Your task to perform on an android device: Open Google Maps and go to "Timeline" Image 0: 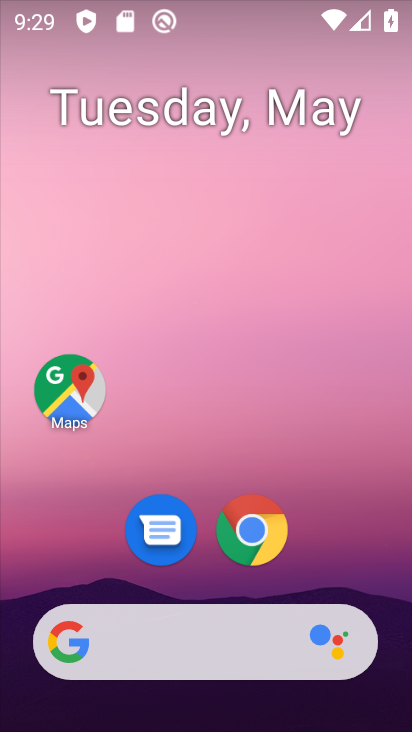
Step 0: drag from (194, 563) to (273, 69)
Your task to perform on an android device: Open Google Maps and go to "Timeline" Image 1: 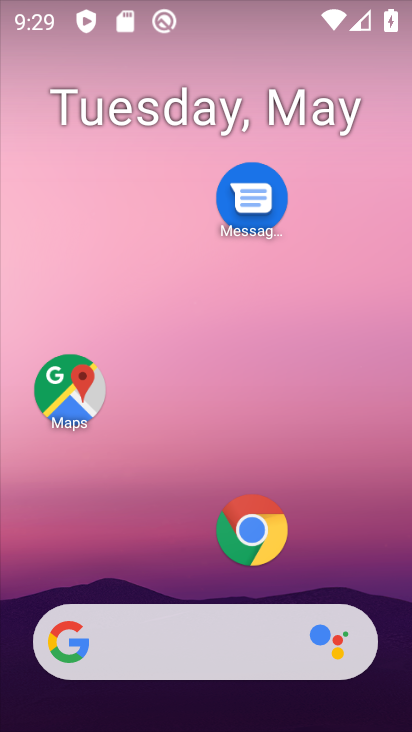
Step 1: drag from (311, 546) to (325, 245)
Your task to perform on an android device: Open Google Maps and go to "Timeline" Image 2: 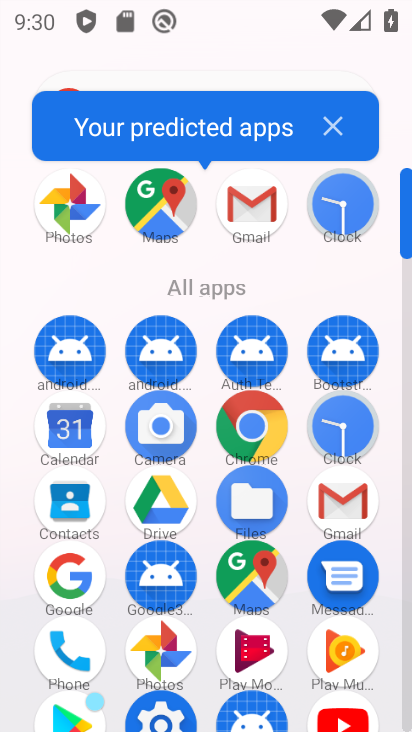
Step 2: click (244, 563)
Your task to perform on an android device: Open Google Maps and go to "Timeline" Image 3: 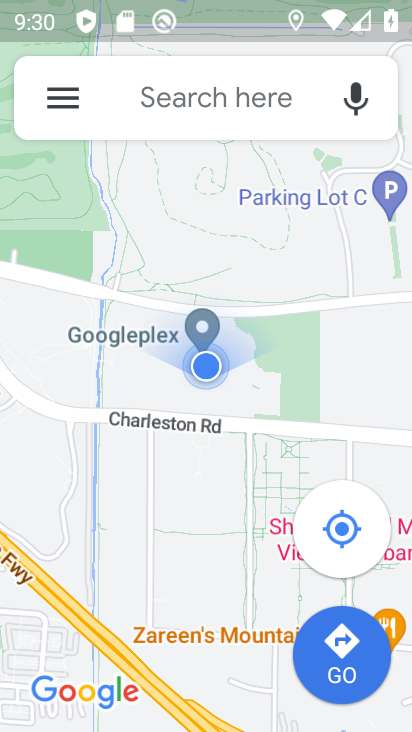
Step 3: click (57, 102)
Your task to perform on an android device: Open Google Maps and go to "Timeline" Image 4: 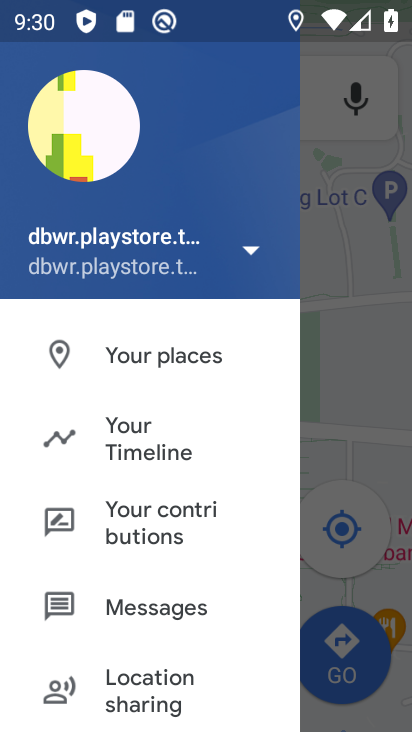
Step 4: click (152, 446)
Your task to perform on an android device: Open Google Maps and go to "Timeline" Image 5: 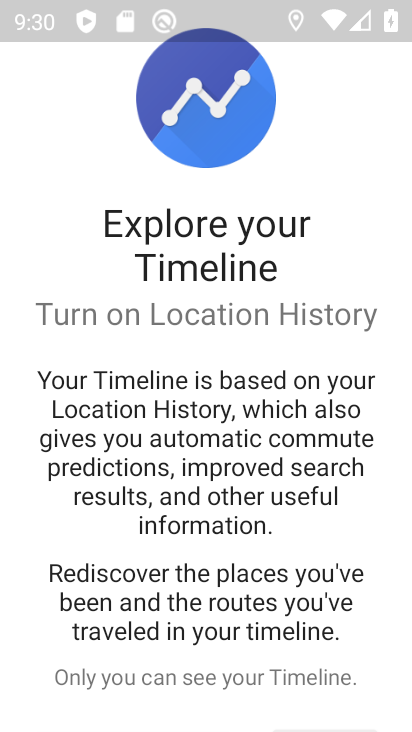
Step 5: drag from (163, 461) to (190, 321)
Your task to perform on an android device: Open Google Maps and go to "Timeline" Image 6: 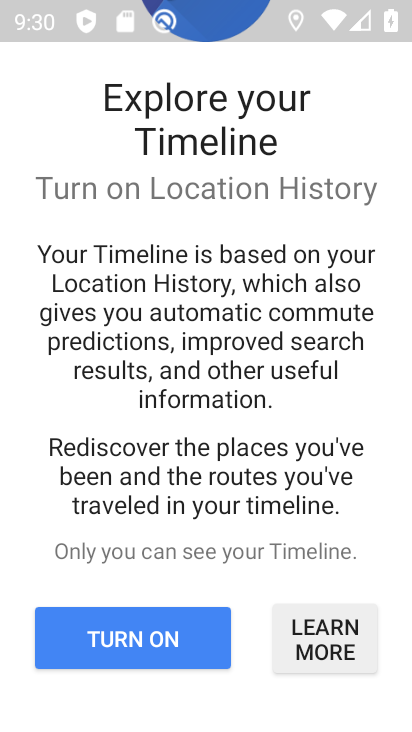
Step 6: drag from (227, 569) to (257, 461)
Your task to perform on an android device: Open Google Maps and go to "Timeline" Image 7: 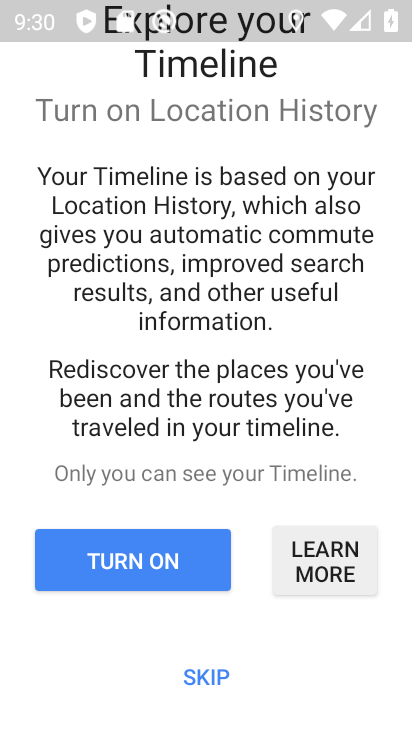
Step 7: click (217, 672)
Your task to perform on an android device: Open Google Maps and go to "Timeline" Image 8: 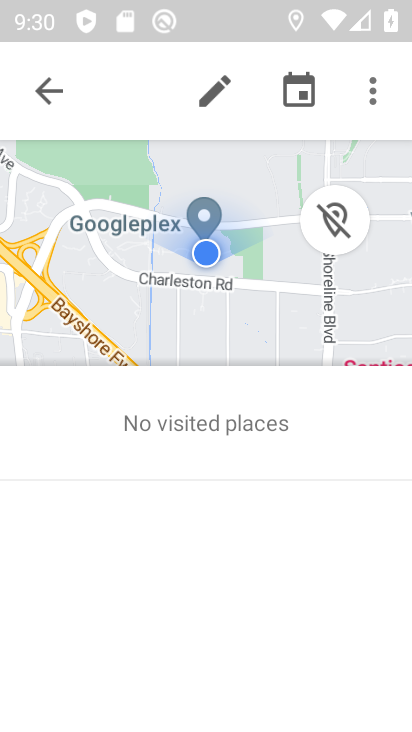
Step 8: task complete